Your task to perform on an android device: Search for seafood restaurants on Google Maps Image 0: 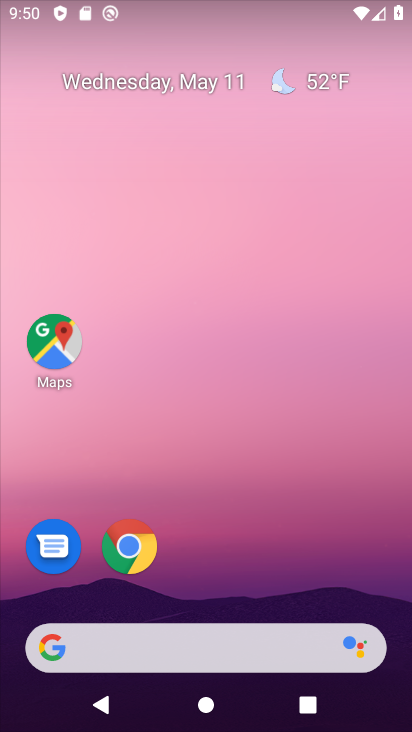
Step 0: click (51, 340)
Your task to perform on an android device: Search for seafood restaurants on Google Maps Image 1: 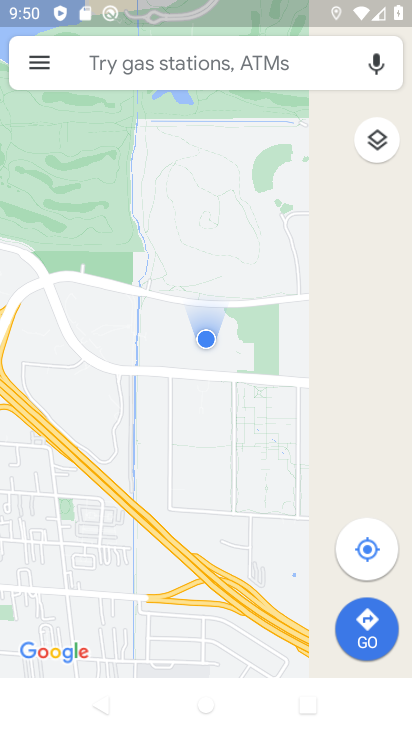
Step 1: click (156, 68)
Your task to perform on an android device: Search for seafood restaurants on Google Maps Image 2: 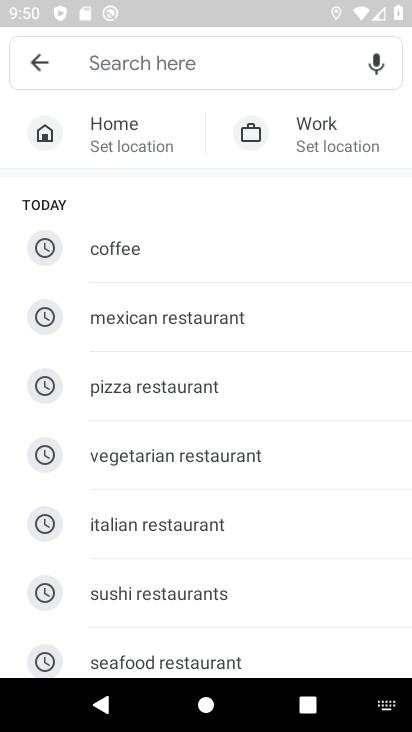
Step 2: type "Seafood restaurants "
Your task to perform on an android device: Search for seafood restaurants on Google Maps Image 3: 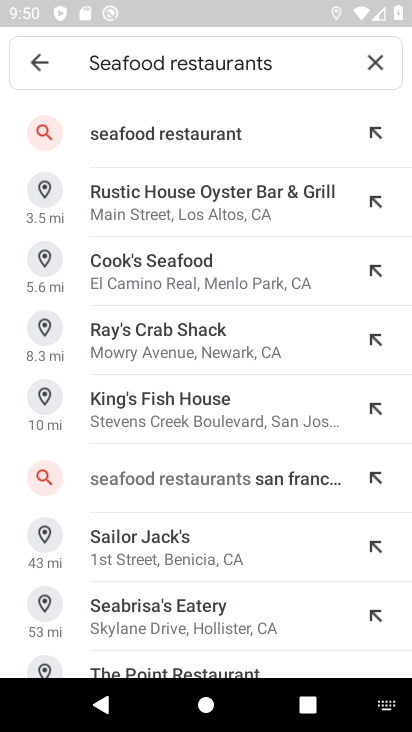
Step 3: click (191, 129)
Your task to perform on an android device: Search for seafood restaurants on Google Maps Image 4: 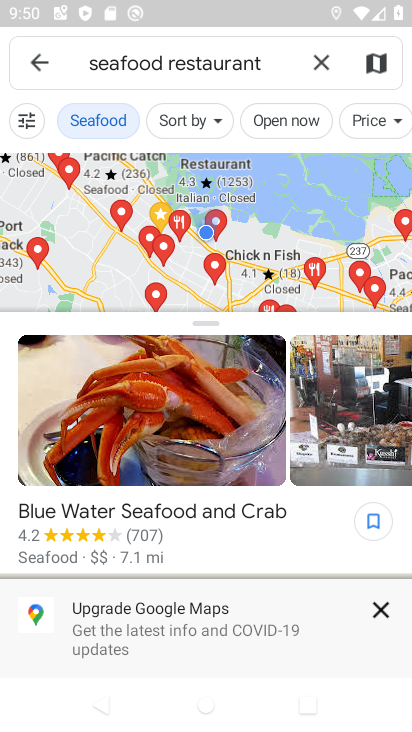
Step 4: click (389, 616)
Your task to perform on an android device: Search for seafood restaurants on Google Maps Image 5: 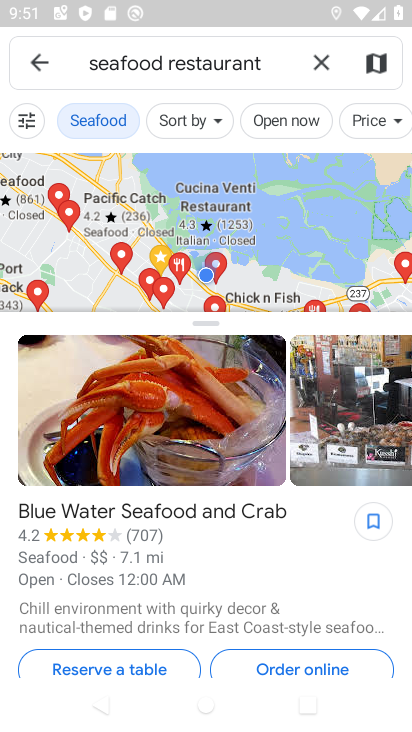
Step 5: task complete